Your task to perform on an android device: change the clock display to analog Image 0: 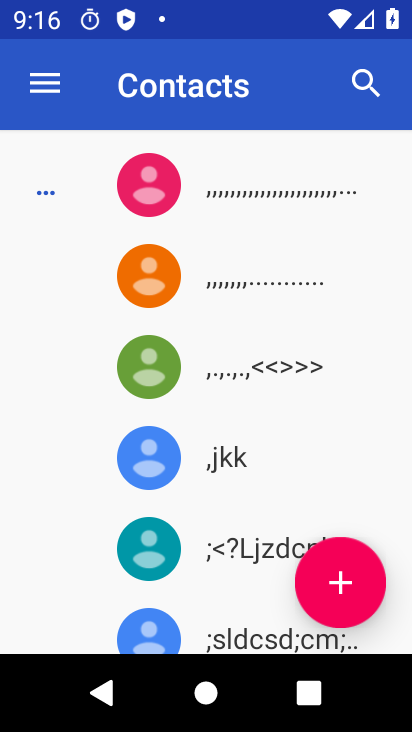
Step 0: press home button
Your task to perform on an android device: change the clock display to analog Image 1: 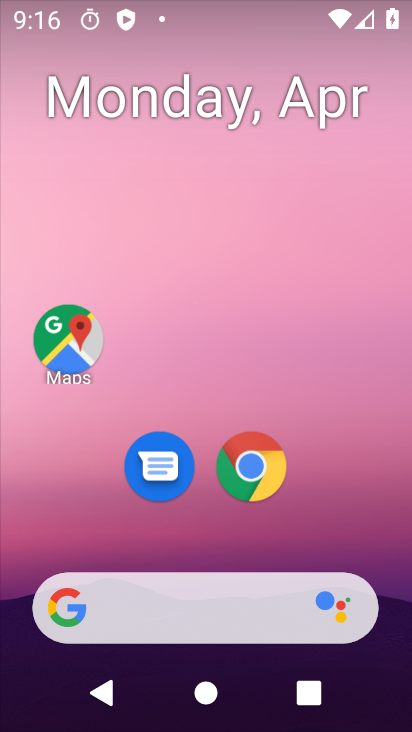
Step 1: drag from (207, 541) to (253, 18)
Your task to perform on an android device: change the clock display to analog Image 2: 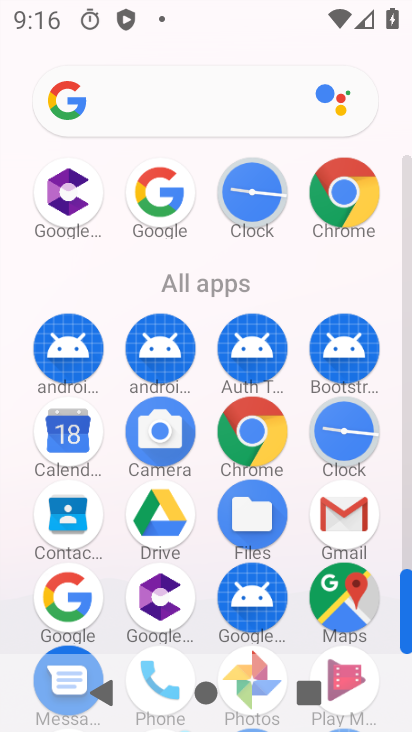
Step 2: click (350, 424)
Your task to perform on an android device: change the clock display to analog Image 3: 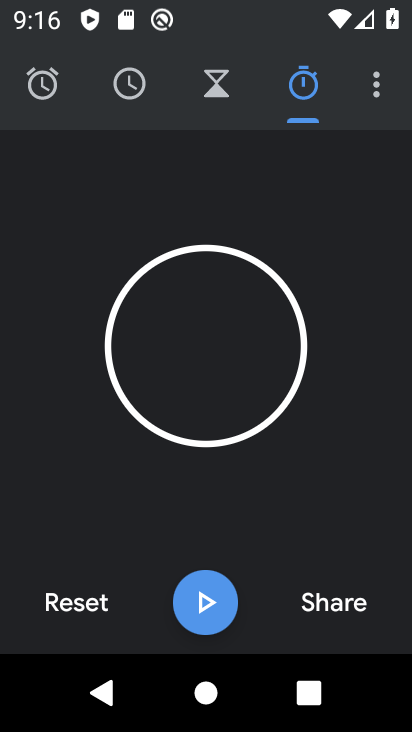
Step 3: click (370, 85)
Your task to perform on an android device: change the clock display to analog Image 4: 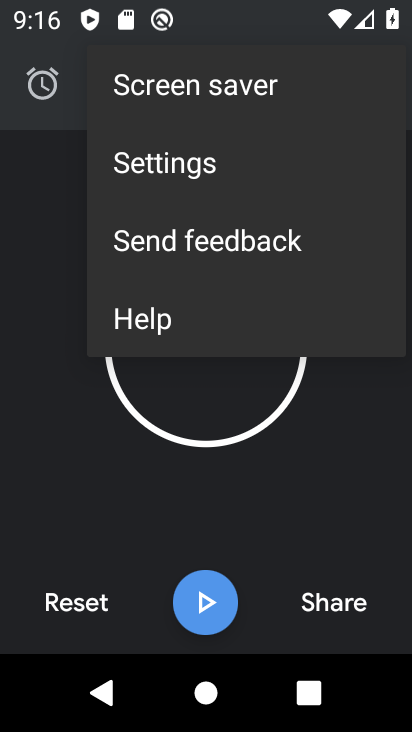
Step 4: click (190, 145)
Your task to perform on an android device: change the clock display to analog Image 5: 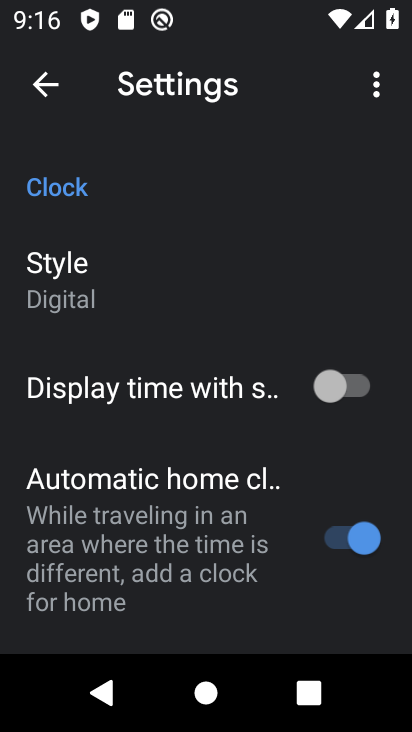
Step 5: click (52, 292)
Your task to perform on an android device: change the clock display to analog Image 6: 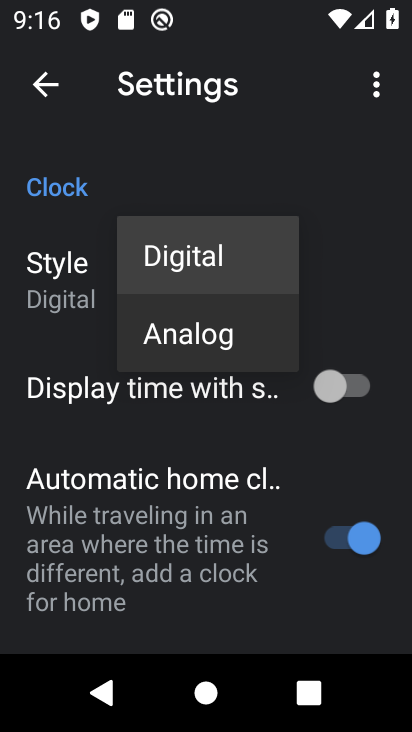
Step 6: click (131, 339)
Your task to perform on an android device: change the clock display to analog Image 7: 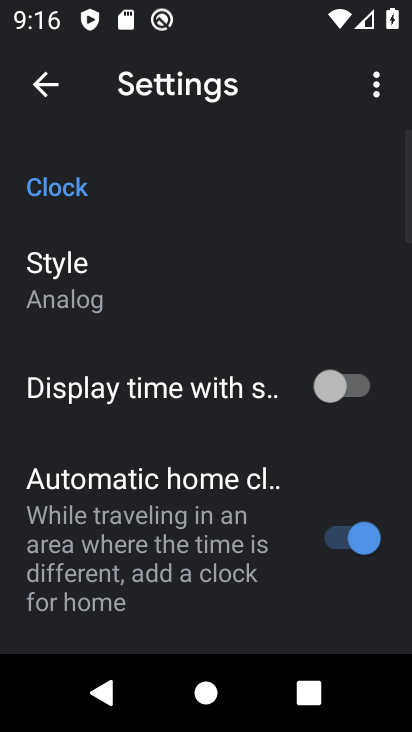
Step 7: task complete